Your task to perform on an android device: open chrome privacy settings Image 0: 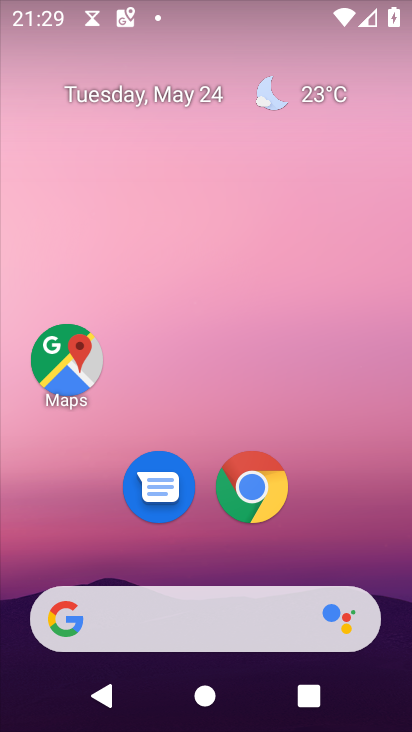
Step 0: click (263, 509)
Your task to perform on an android device: open chrome privacy settings Image 1: 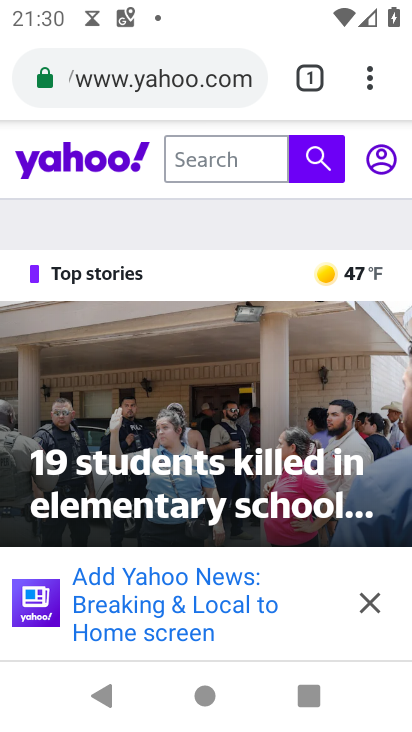
Step 1: drag from (376, 71) to (60, 554)
Your task to perform on an android device: open chrome privacy settings Image 2: 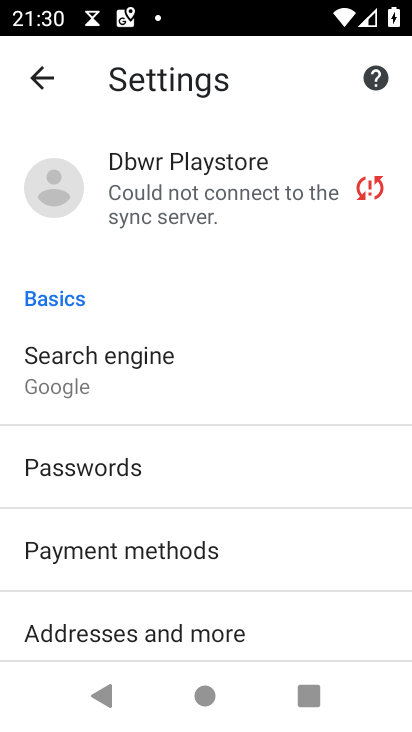
Step 2: drag from (230, 562) to (233, 0)
Your task to perform on an android device: open chrome privacy settings Image 3: 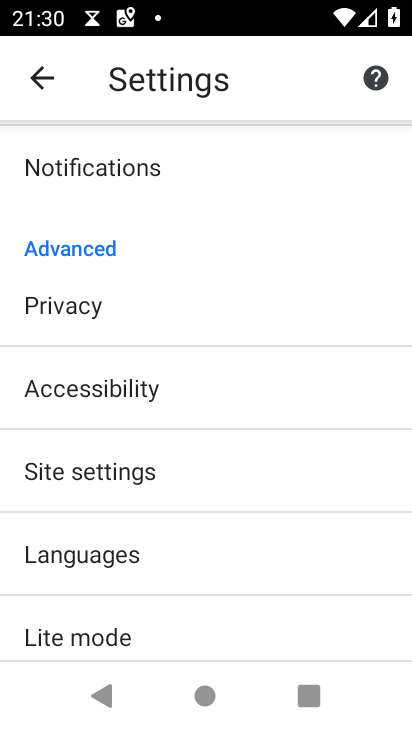
Step 3: click (60, 299)
Your task to perform on an android device: open chrome privacy settings Image 4: 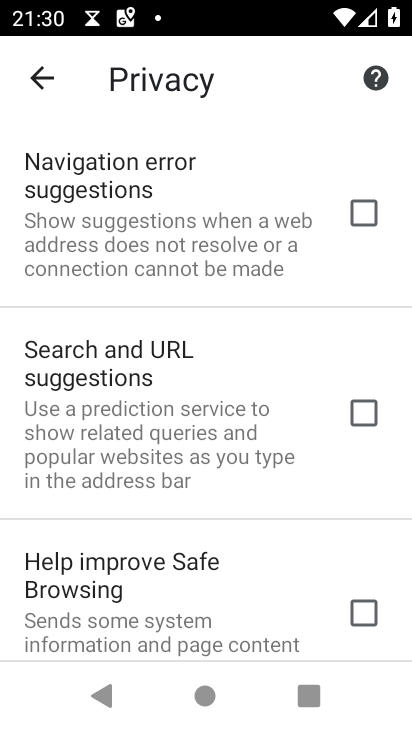
Step 4: task complete